Your task to perform on an android device: Toggle the flashlight Image 0: 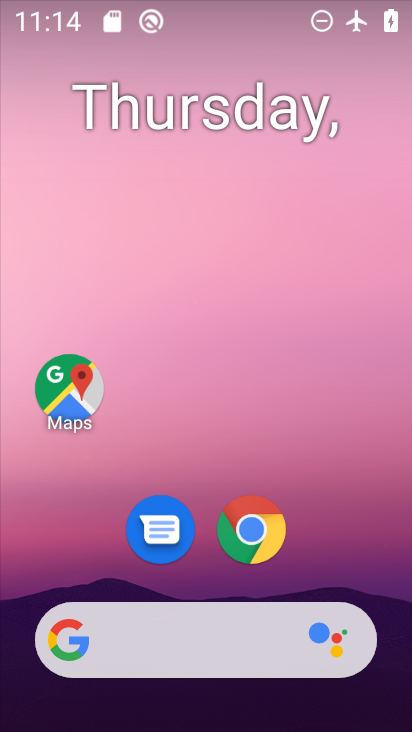
Step 0: drag from (298, 22) to (252, 688)
Your task to perform on an android device: Toggle the flashlight Image 1: 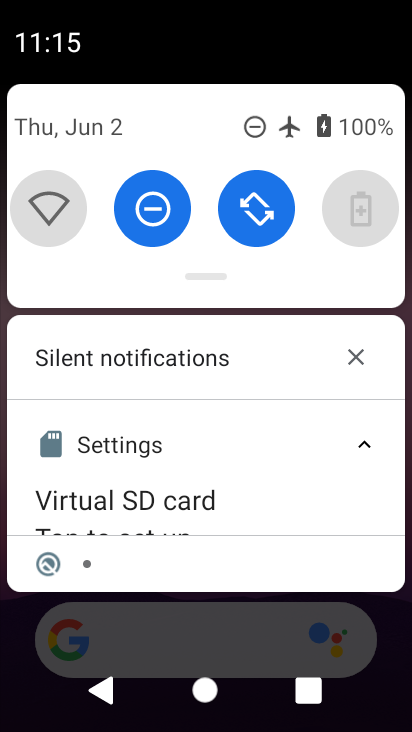
Step 1: task complete